Your task to perform on an android device: change timer sound Image 0: 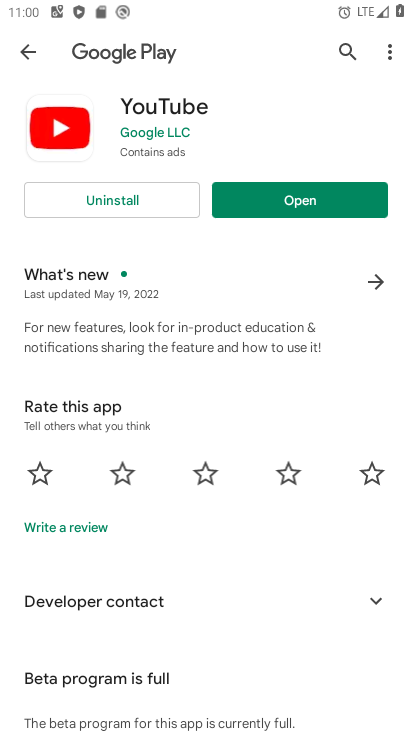
Step 0: press home button
Your task to perform on an android device: change timer sound Image 1: 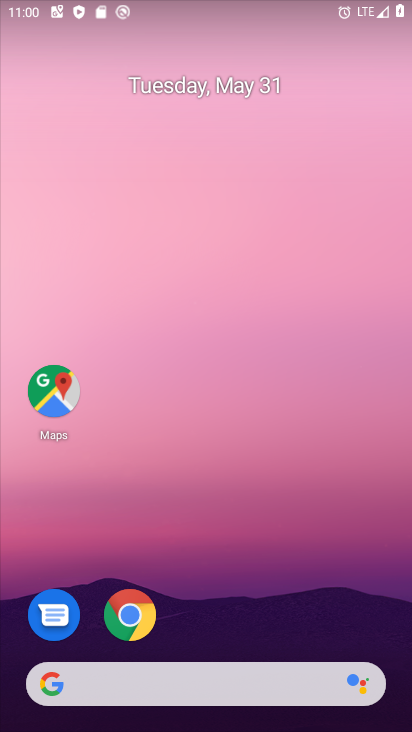
Step 1: drag from (290, 600) to (244, 95)
Your task to perform on an android device: change timer sound Image 2: 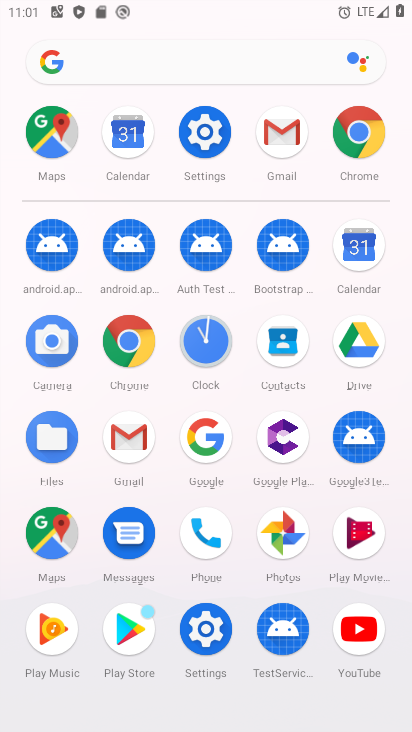
Step 2: click (217, 345)
Your task to perform on an android device: change timer sound Image 3: 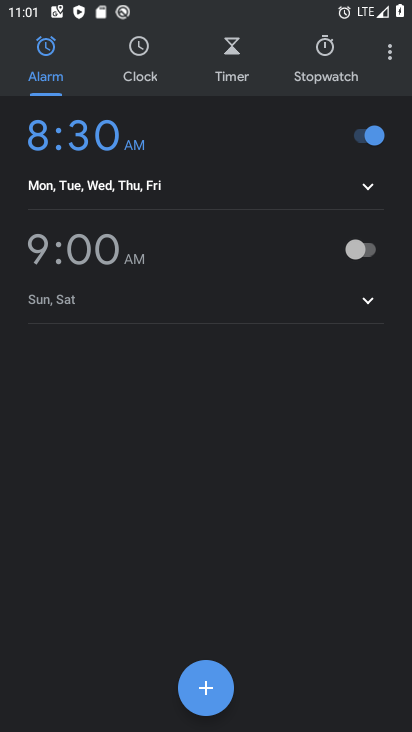
Step 3: click (391, 60)
Your task to perform on an android device: change timer sound Image 4: 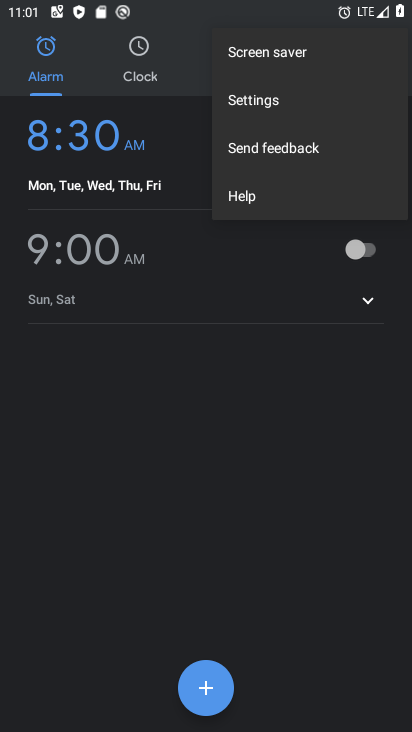
Step 4: click (239, 109)
Your task to perform on an android device: change timer sound Image 5: 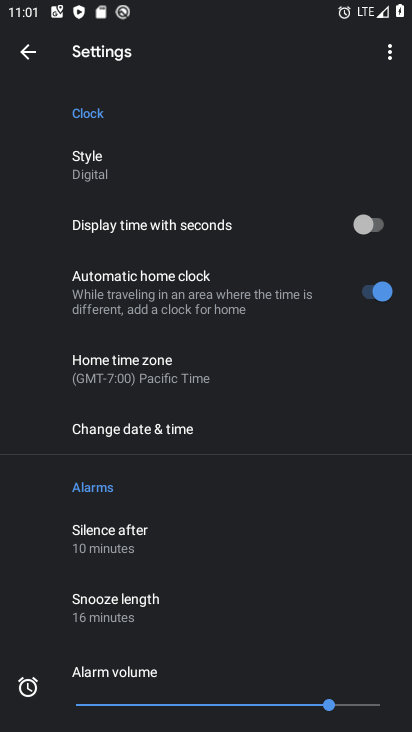
Step 5: drag from (170, 621) to (262, 322)
Your task to perform on an android device: change timer sound Image 6: 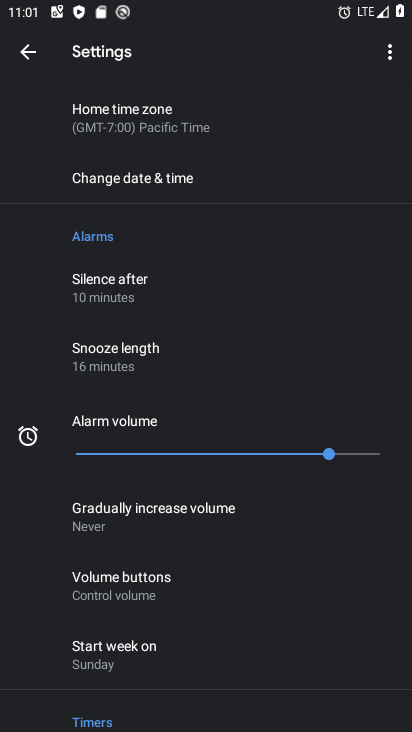
Step 6: drag from (202, 310) to (210, 627)
Your task to perform on an android device: change timer sound Image 7: 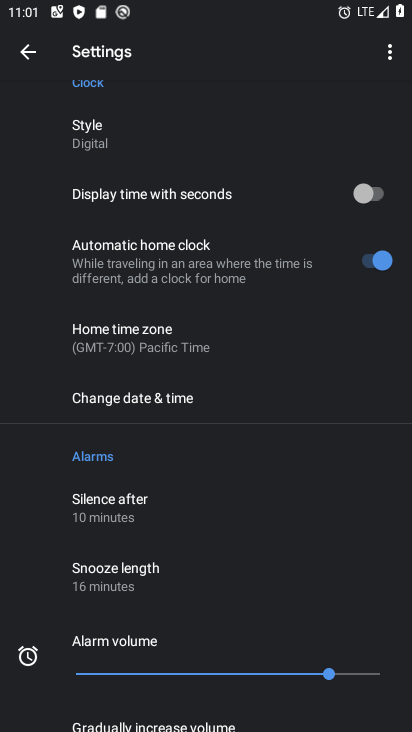
Step 7: drag from (131, 311) to (195, 602)
Your task to perform on an android device: change timer sound Image 8: 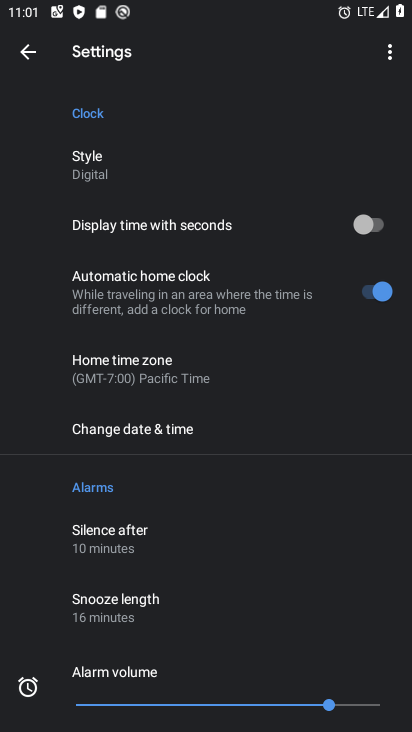
Step 8: drag from (195, 602) to (217, 271)
Your task to perform on an android device: change timer sound Image 9: 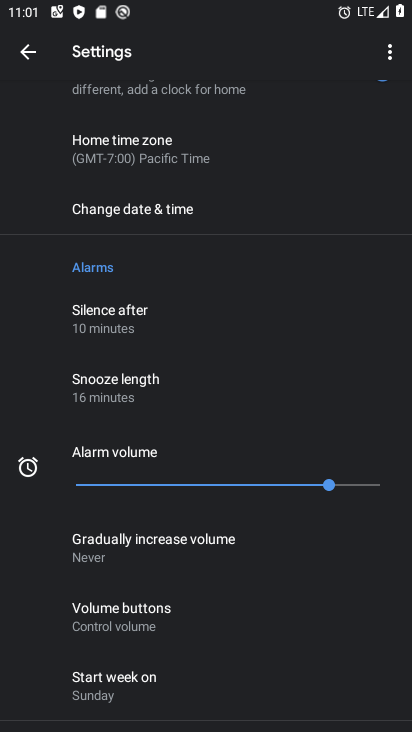
Step 9: drag from (183, 571) to (194, 266)
Your task to perform on an android device: change timer sound Image 10: 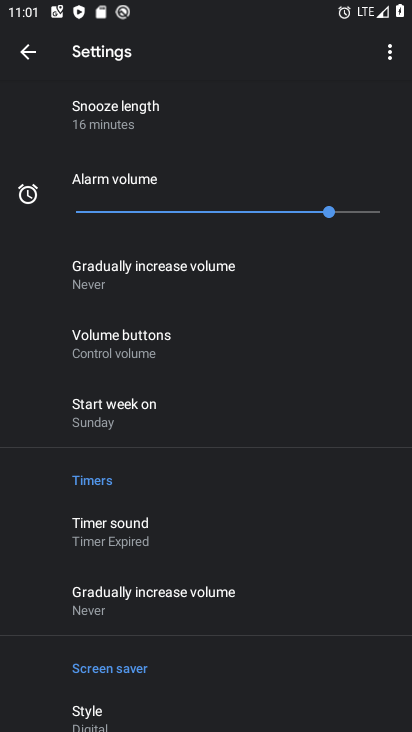
Step 10: click (121, 531)
Your task to perform on an android device: change timer sound Image 11: 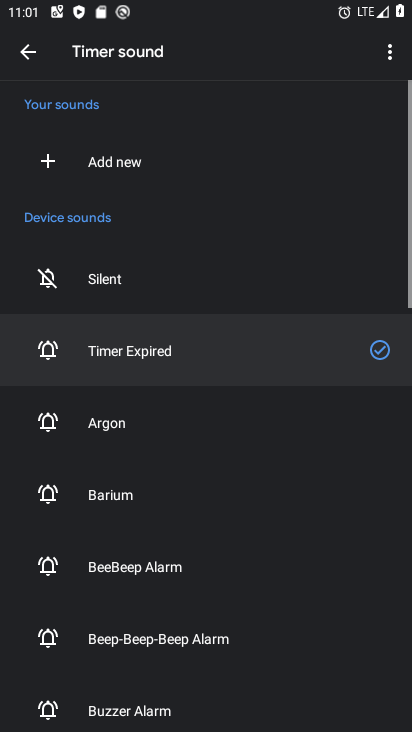
Step 11: click (107, 501)
Your task to perform on an android device: change timer sound Image 12: 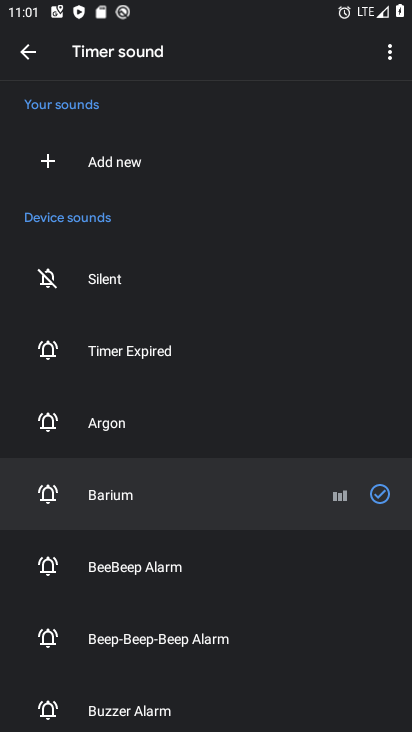
Step 12: task complete